Your task to perform on an android device: Open the calendar app, open the side menu, and click the "Day" option Image 0: 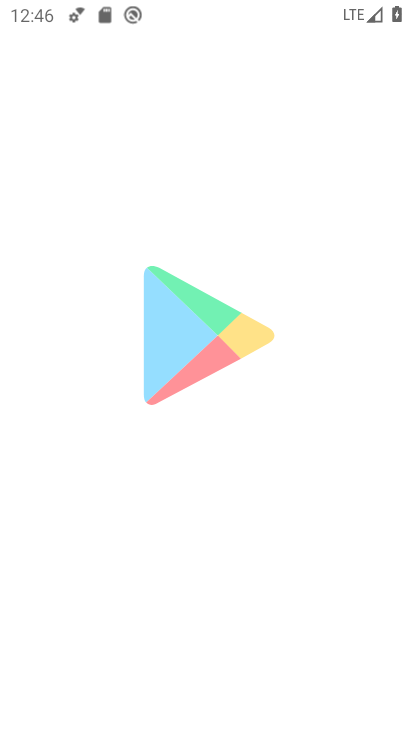
Step 0: drag from (186, 566) to (322, 104)
Your task to perform on an android device: Open the calendar app, open the side menu, and click the "Day" option Image 1: 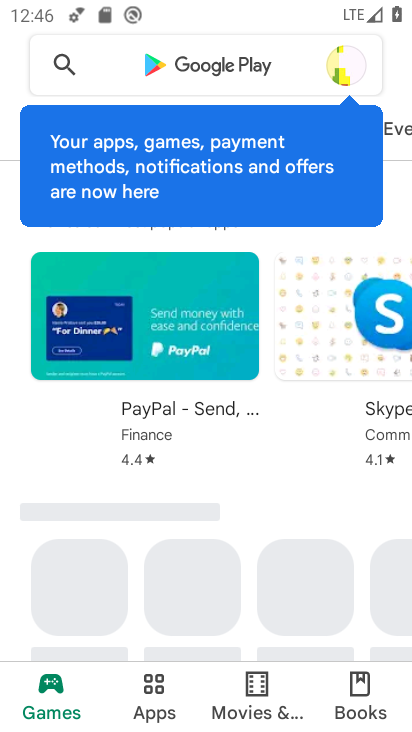
Step 1: press home button
Your task to perform on an android device: Open the calendar app, open the side menu, and click the "Day" option Image 2: 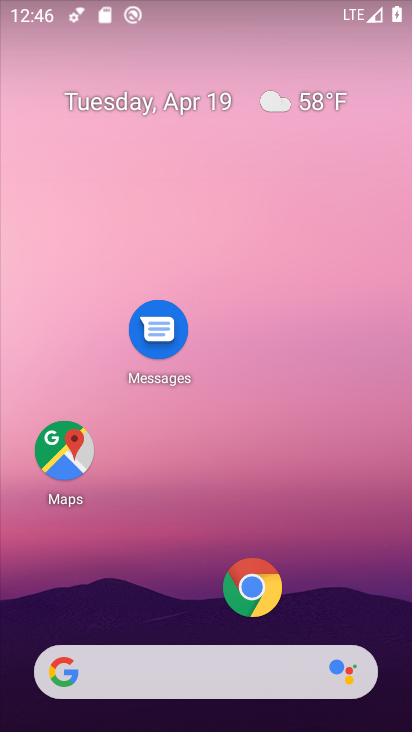
Step 2: drag from (185, 576) to (209, 128)
Your task to perform on an android device: Open the calendar app, open the side menu, and click the "Day" option Image 3: 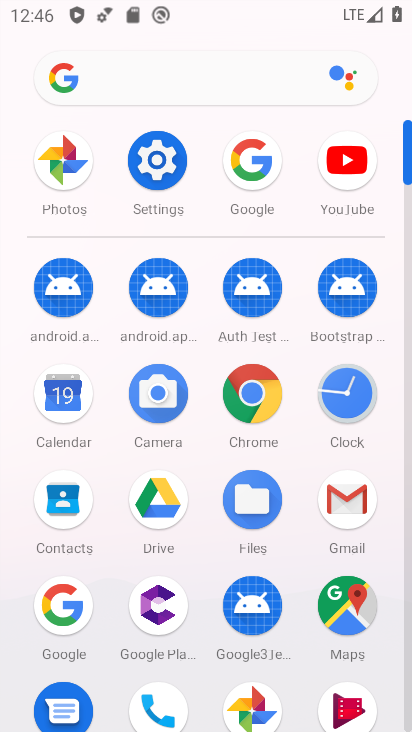
Step 3: click (69, 400)
Your task to perform on an android device: Open the calendar app, open the side menu, and click the "Day" option Image 4: 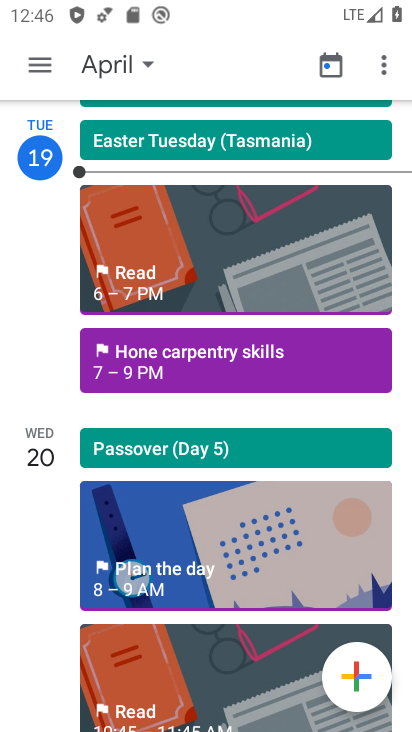
Step 4: click (35, 58)
Your task to perform on an android device: Open the calendar app, open the side menu, and click the "Day" option Image 5: 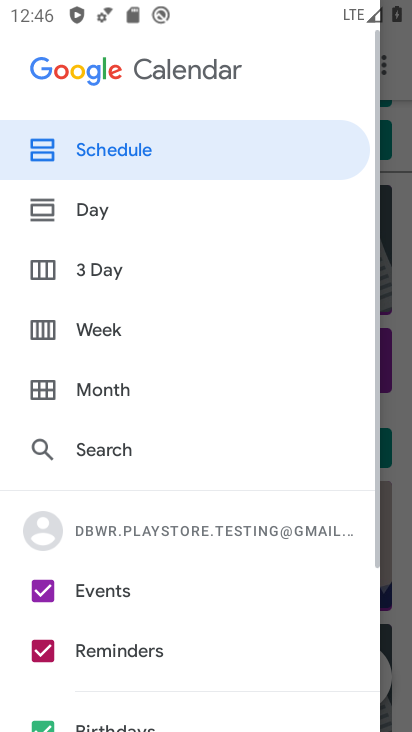
Step 5: click (117, 212)
Your task to perform on an android device: Open the calendar app, open the side menu, and click the "Day" option Image 6: 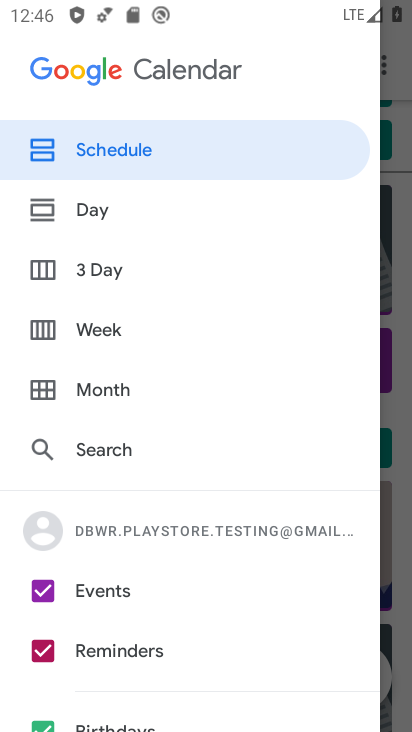
Step 6: click (112, 213)
Your task to perform on an android device: Open the calendar app, open the side menu, and click the "Day" option Image 7: 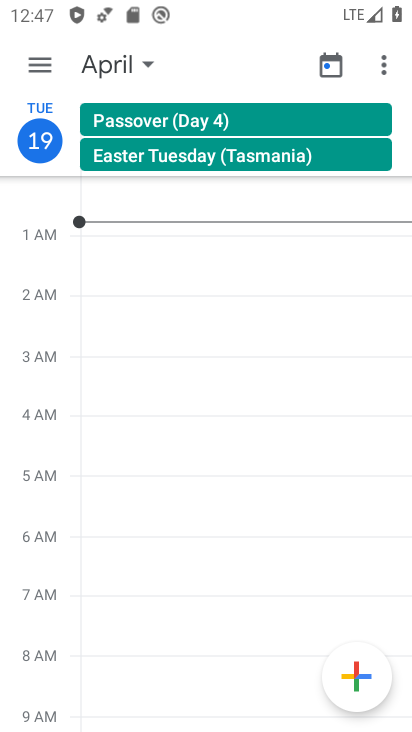
Step 7: task complete